Your task to perform on an android device: Search for a new eyeliner Image 0: 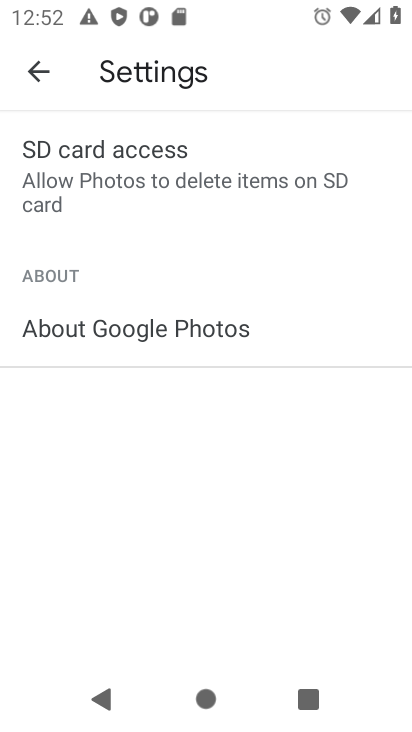
Step 0: press home button
Your task to perform on an android device: Search for a new eyeliner Image 1: 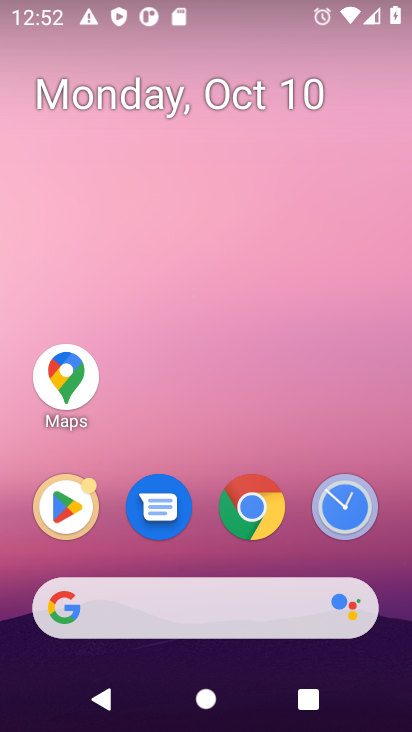
Step 1: click (267, 595)
Your task to perform on an android device: Search for a new eyeliner Image 2: 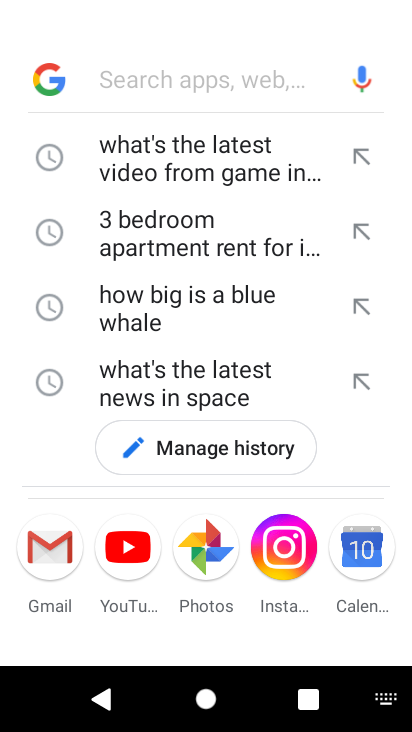
Step 2: type "Search for a new eyeliner"
Your task to perform on an android device: Search for a new eyeliner Image 3: 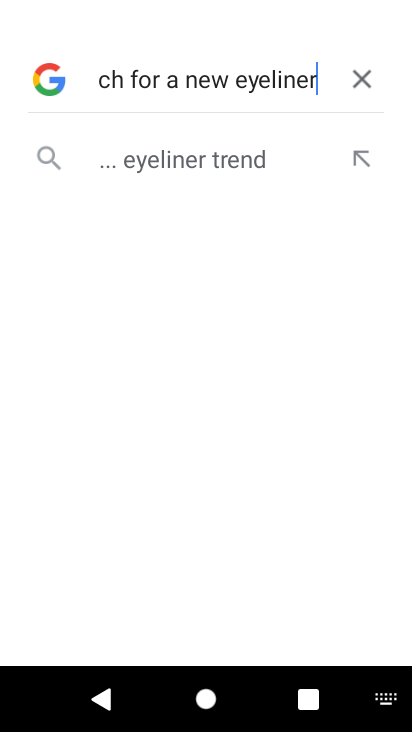
Step 3: press enter
Your task to perform on an android device: Search for a new eyeliner Image 4: 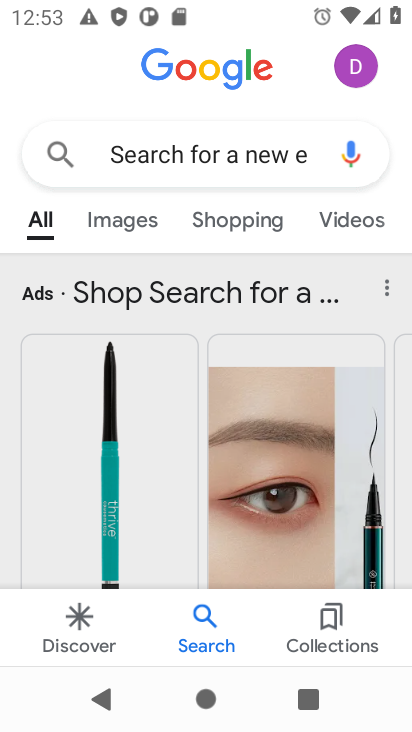
Step 4: task complete